Your task to perform on an android device: turn notification dots off Image 0: 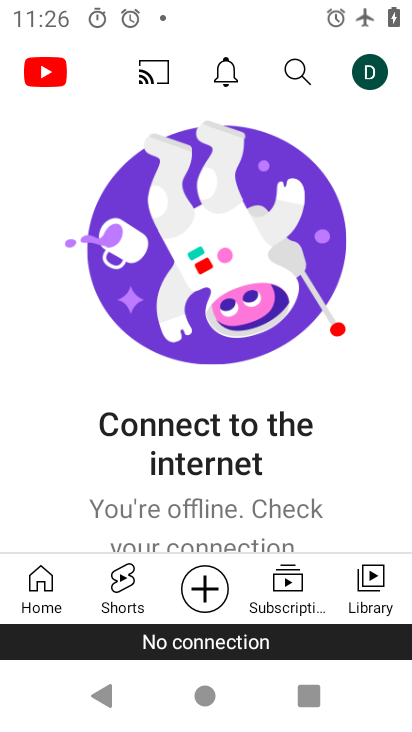
Step 0: press home button
Your task to perform on an android device: turn notification dots off Image 1: 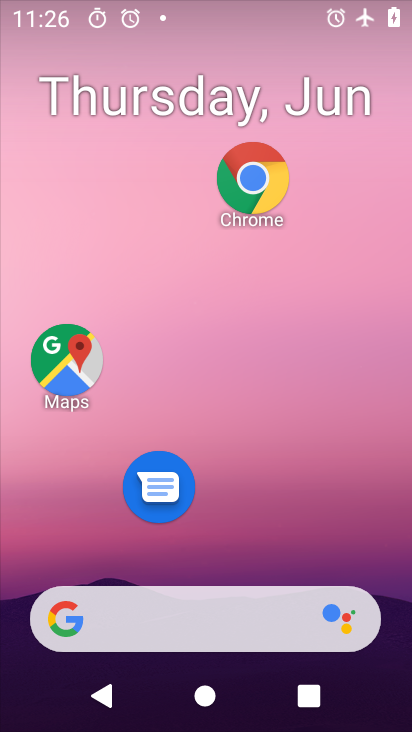
Step 1: drag from (222, 661) to (191, 129)
Your task to perform on an android device: turn notification dots off Image 2: 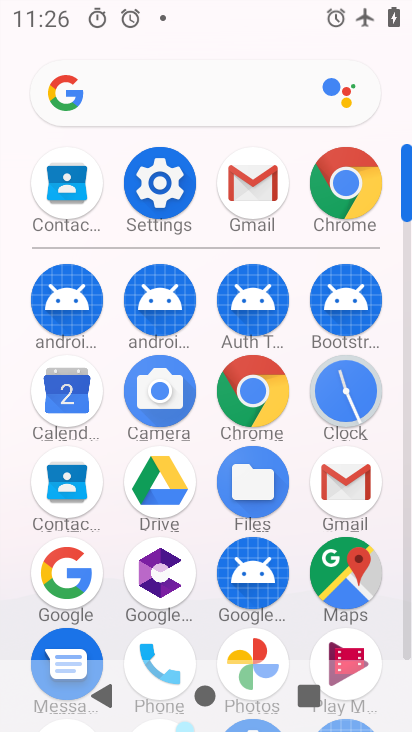
Step 2: click (164, 191)
Your task to perform on an android device: turn notification dots off Image 3: 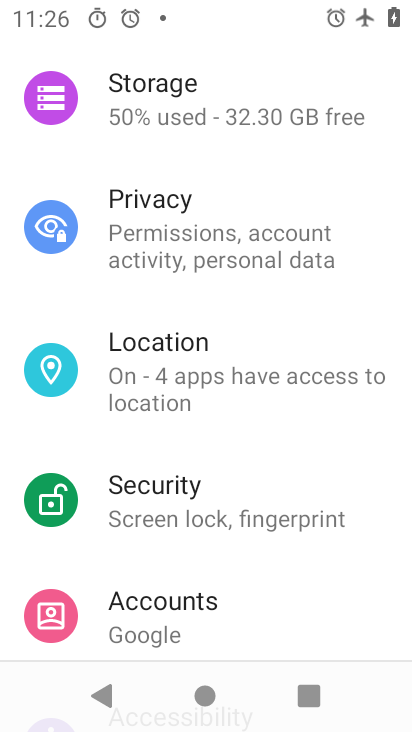
Step 3: drag from (303, 195) to (293, 475)
Your task to perform on an android device: turn notification dots off Image 4: 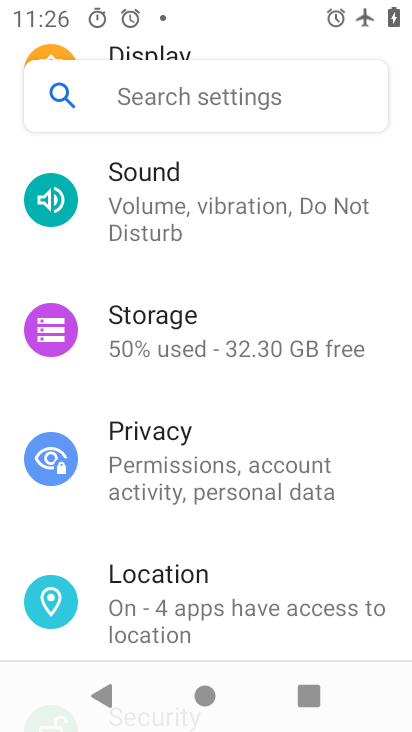
Step 4: drag from (230, 521) to (237, 580)
Your task to perform on an android device: turn notification dots off Image 5: 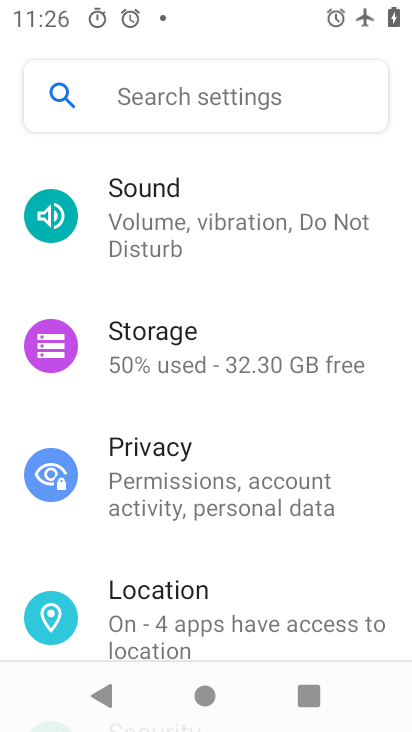
Step 5: drag from (231, 538) to (222, 642)
Your task to perform on an android device: turn notification dots off Image 6: 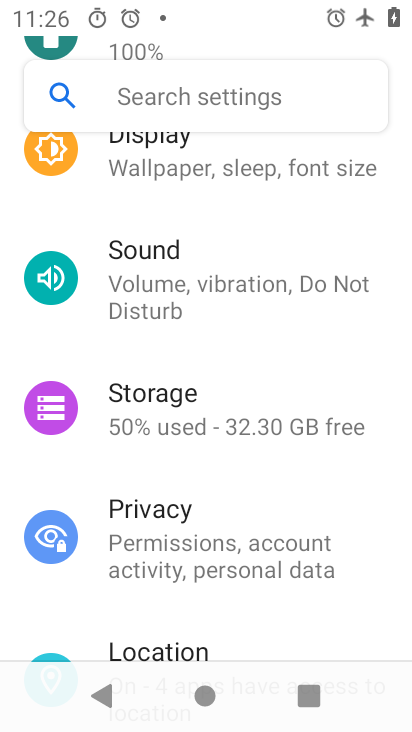
Step 6: drag from (200, 153) to (200, 627)
Your task to perform on an android device: turn notification dots off Image 7: 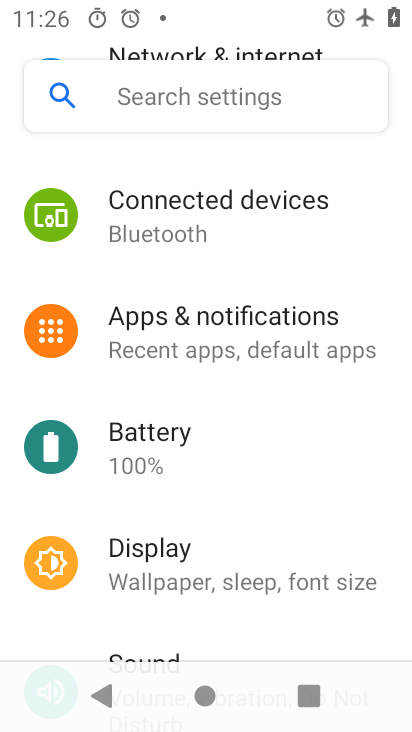
Step 7: click (209, 331)
Your task to perform on an android device: turn notification dots off Image 8: 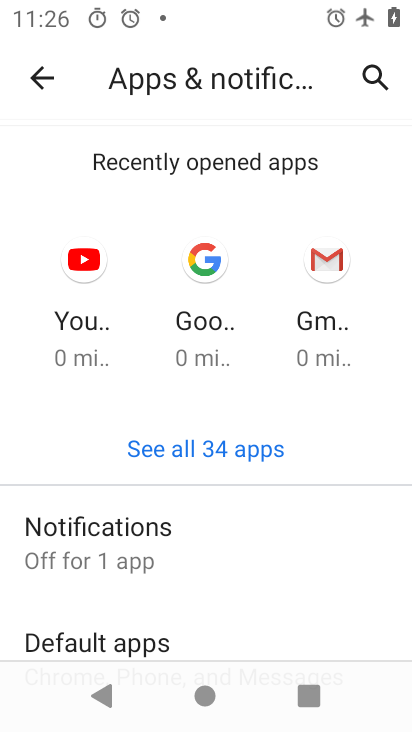
Step 8: click (86, 568)
Your task to perform on an android device: turn notification dots off Image 9: 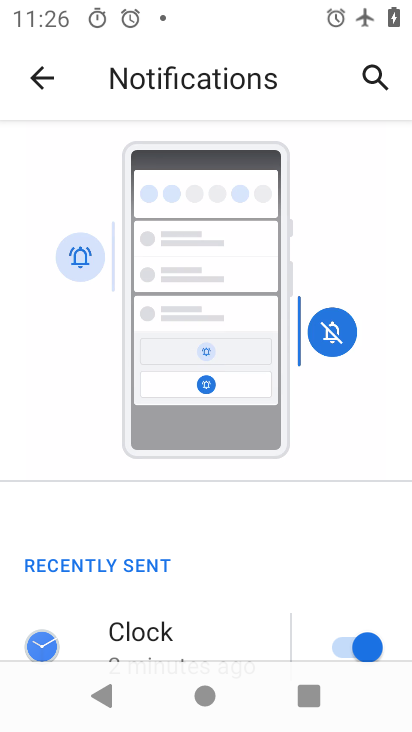
Step 9: drag from (216, 642) to (173, 141)
Your task to perform on an android device: turn notification dots off Image 10: 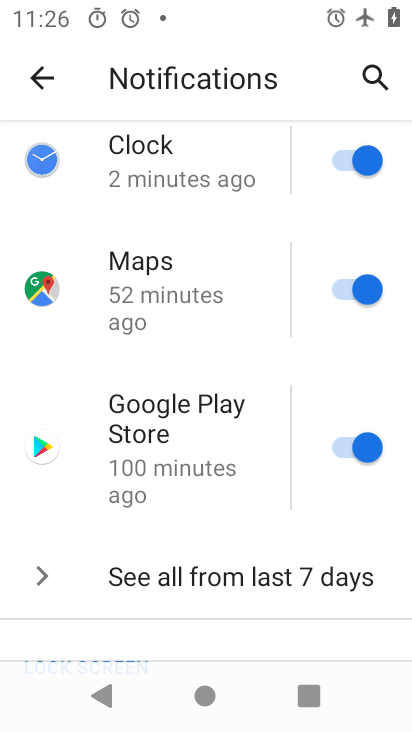
Step 10: drag from (175, 638) to (175, 117)
Your task to perform on an android device: turn notification dots off Image 11: 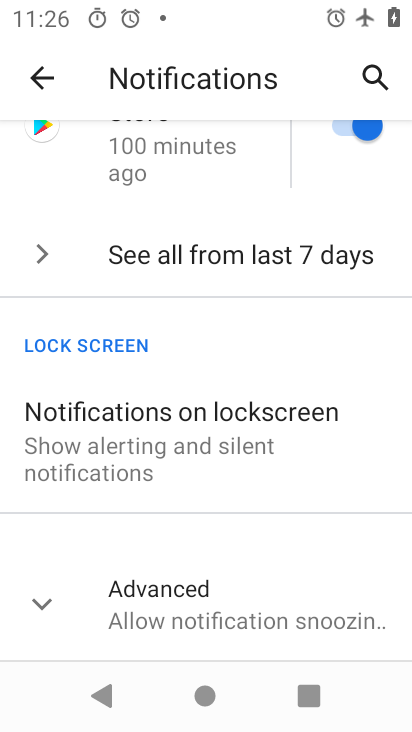
Step 11: click (196, 604)
Your task to perform on an android device: turn notification dots off Image 12: 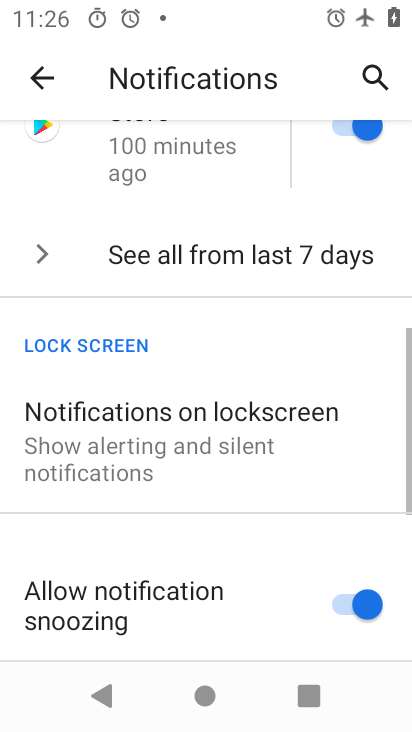
Step 12: drag from (222, 594) to (222, 196)
Your task to perform on an android device: turn notification dots off Image 13: 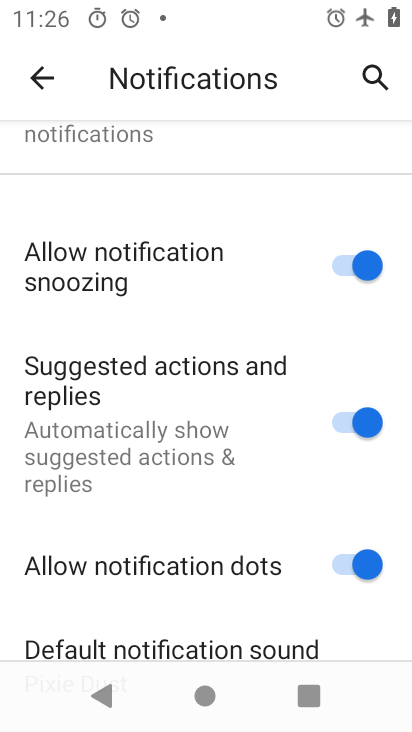
Step 13: drag from (159, 623) to (162, 322)
Your task to perform on an android device: turn notification dots off Image 14: 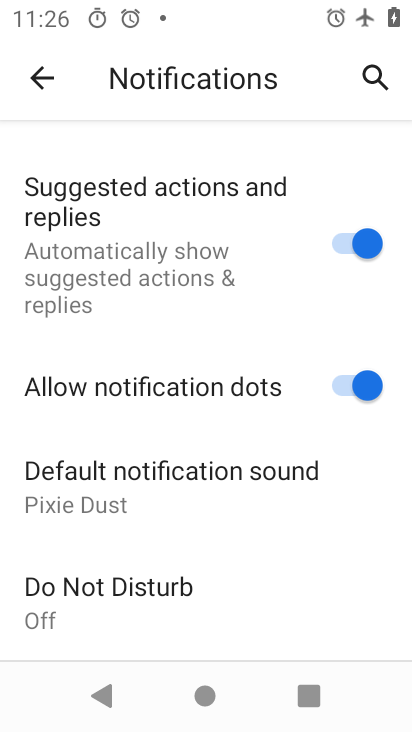
Step 14: click (341, 391)
Your task to perform on an android device: turn notification dots off Image 15: 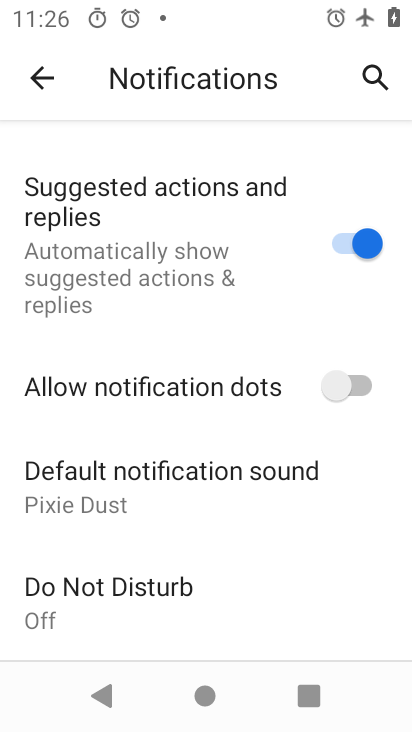
Step 15: task complete